Your task to perform on an android device: open app "Indeed Job Search" Image 0: 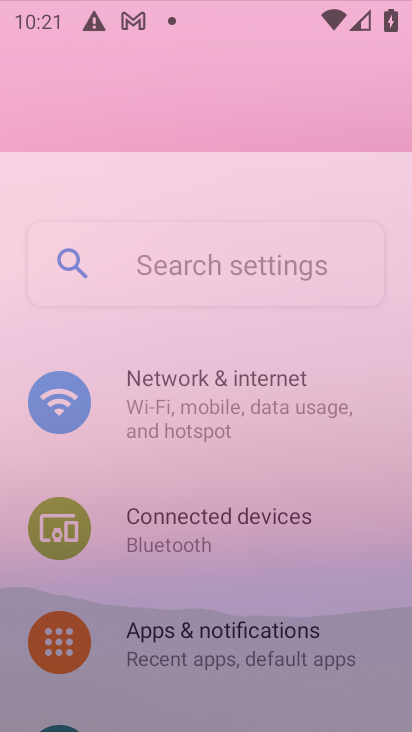
Step 0: drag from (269, 13) to (317, 54)
Your task to perform on an android device: open app "Indeed Job Search" Image 1: 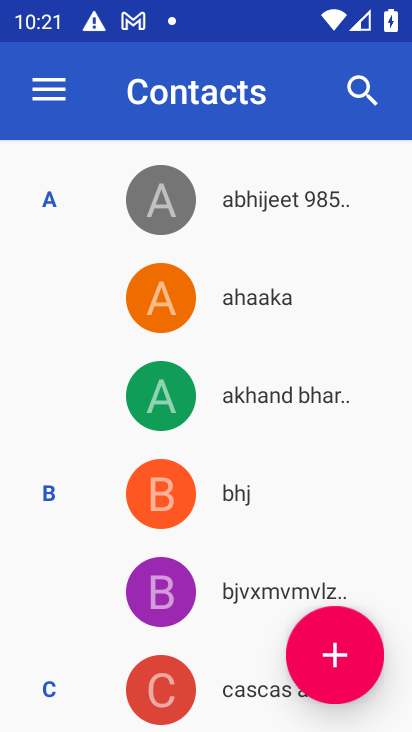
Step 1: press home button
Your task to perform on an android device: open app "Indeed Job Search" Image 2: 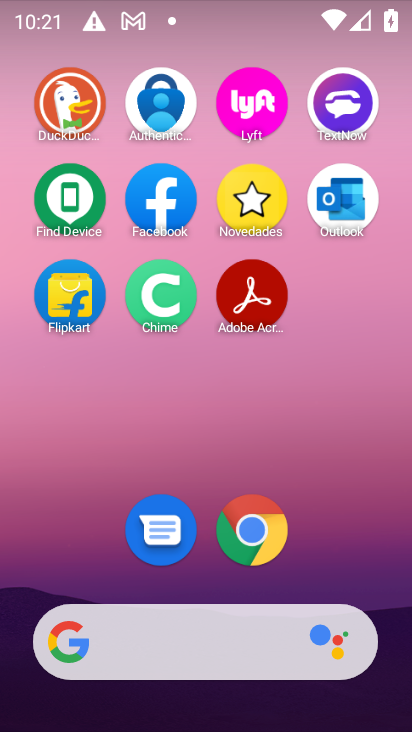
Step 2: drag from (164, 704) to (274, 142)
Your task to perform on an android device: open app "Indeed Job Search" Image 3: 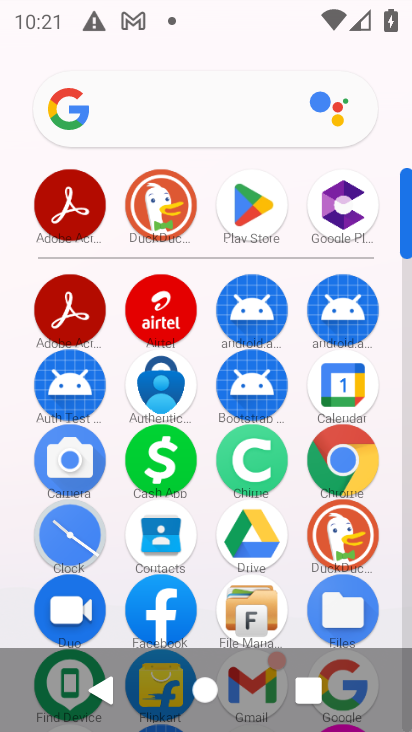
Step 3: click (230, 214)
Your task to perform on an android device: open app "Indeed Job Search" Image 4: 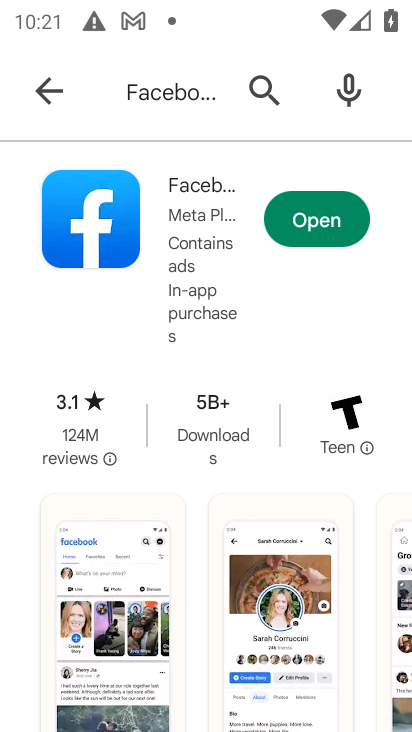
Step 4: click (271, 91)
Your task to perform on an android device: open app "Indeed Job Search" Image 5: 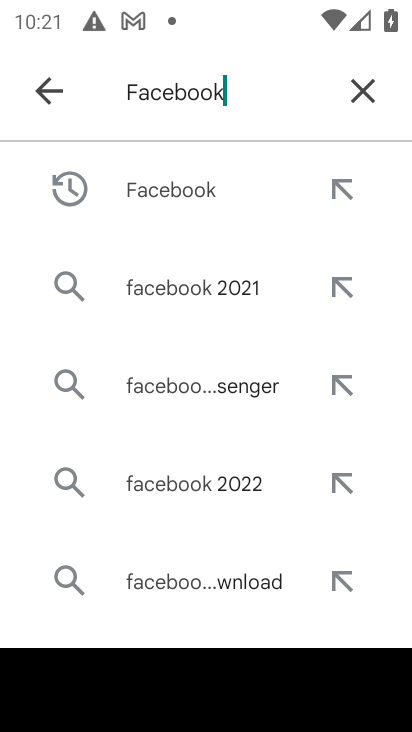
Step 5: click (352, 84)
Your task to perform on an android device: open app "Indeed Job Search" Image 6: 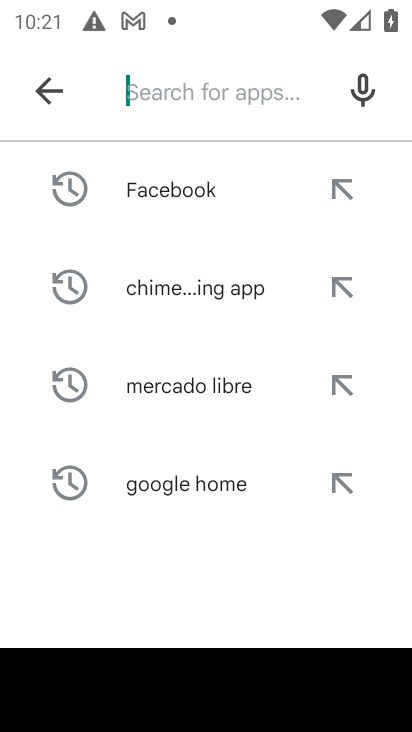
Step 6: type "indeed job search"
Your task to perform on an android device: open app "Indeed Job Search" Image 7: 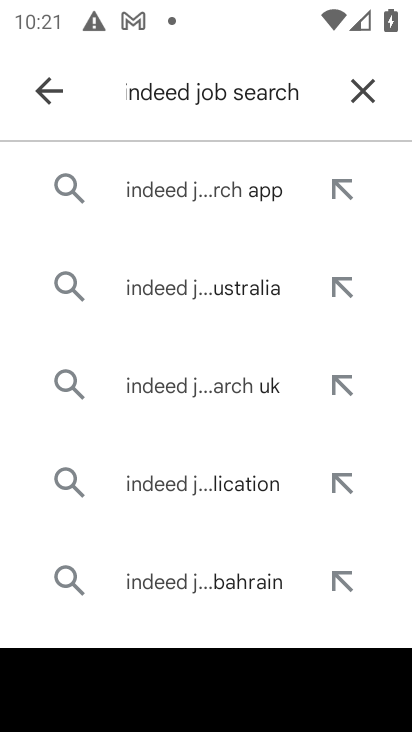
Step 7: press enter
Your task to perform on an android device: open app "Indeed Job Search" Image 8: 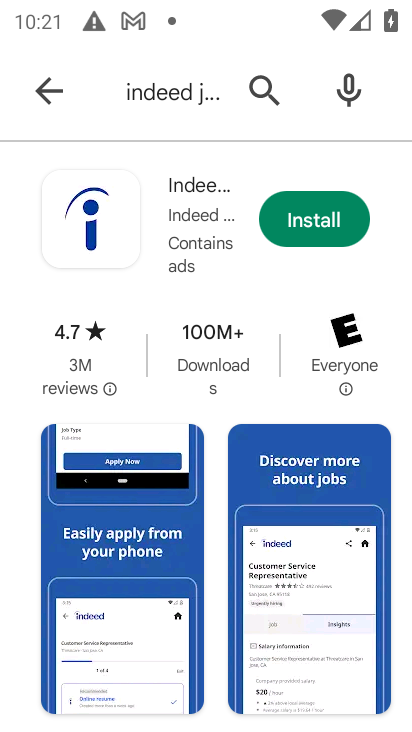
Step 8: task complete